Your task to perform on an android device: Clear the cart on bestbuy.com. Search for "apple airpods pro" on bestbuy.com, select the first entry, and add it to the cart. Image 0: 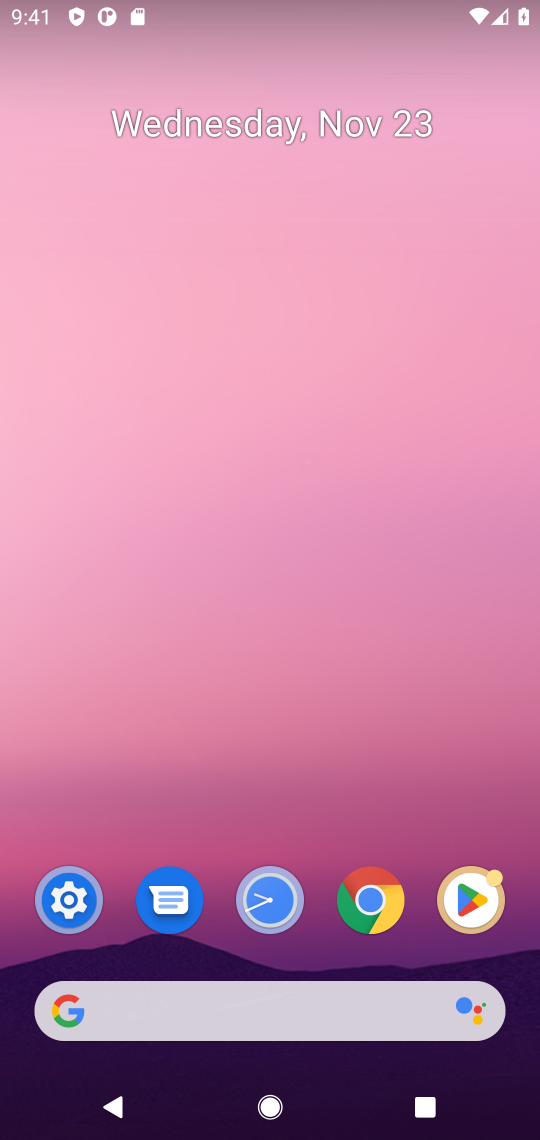
Step 0: click (331, 1001)
Your task to perform on an android device: Clear the cart on bestbuy.com. Search for "apple airpods pro" on bestbuy.com, select the first entry, and add it to the cart. Image 1: 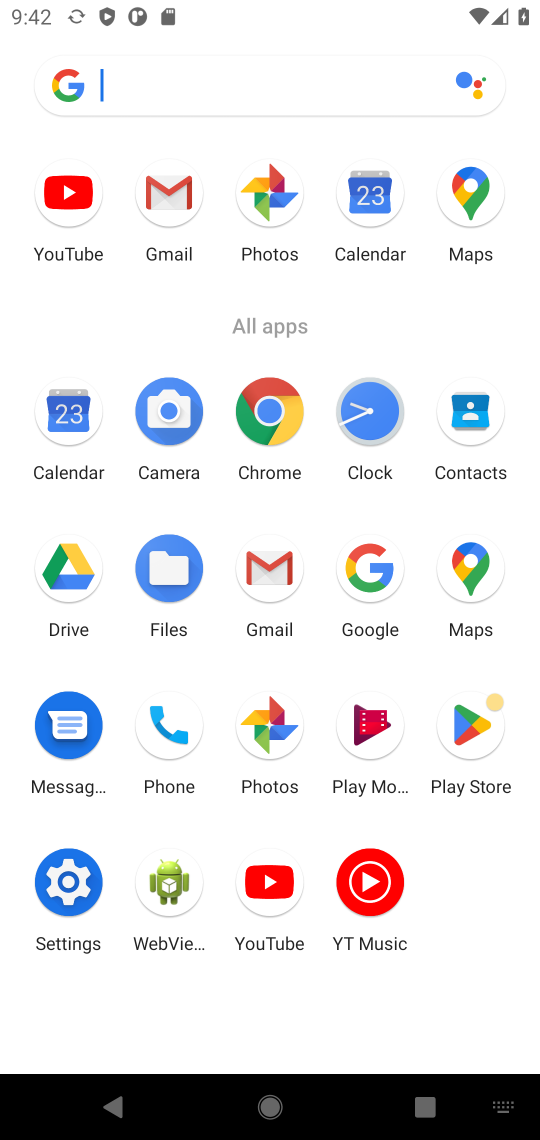
Step 1: press home button
Your task to perform on an android device: Clear the cart on bestbuy.com. Search for "apple airpods pro" on bestbuy.com, select the first entry, and add it to the cart. Image 2: 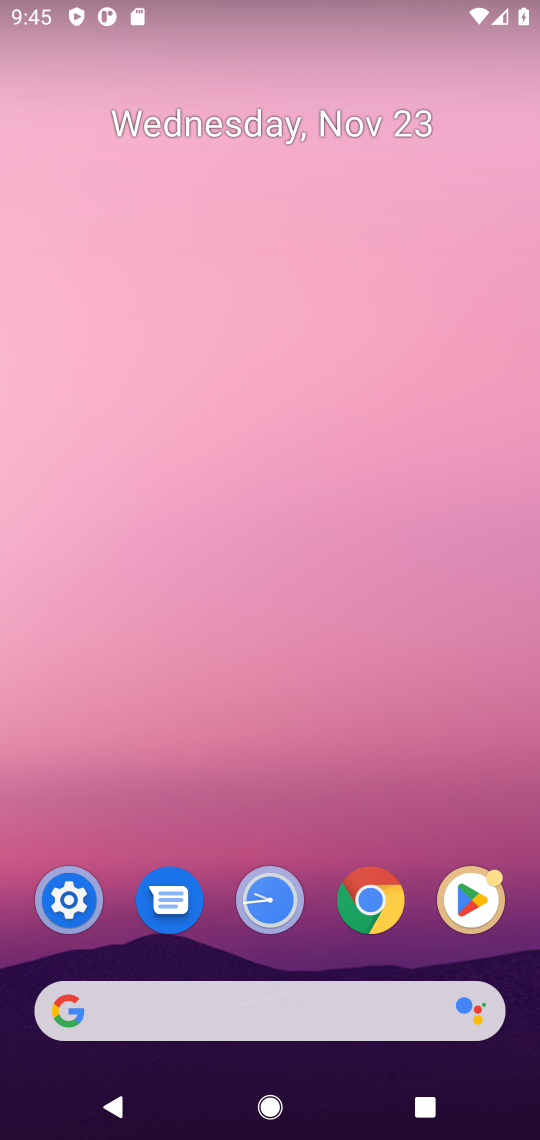
Step 2: click (214, 1021)
Your task to perform on an android device: Clear the cart on bestbuy.com. Search for "apple airpods pro" on bestbuy.com, select the first entry, and add it to the cart. Image 3: 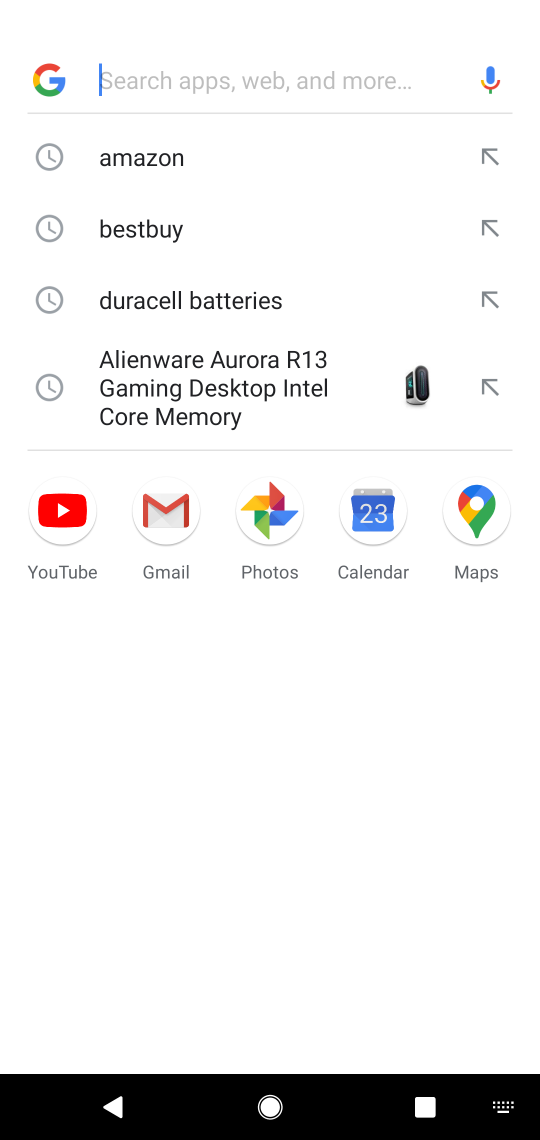
Step 3: click (314, 224)
Your task to perform on an android device: Clear the cart on bestbuy.com. Search for "apple airpods pro" on bestbuy.com, select the first entry, and add it to the cart. Image 4: 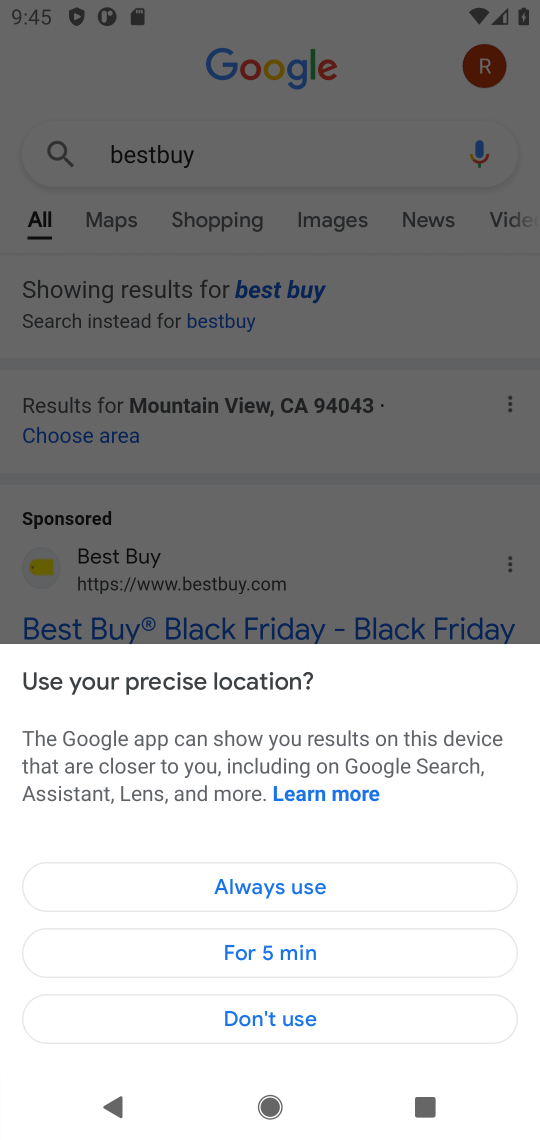
Step 4: click (331, 905)
Your task to perform on an android device: Clear the cart on bestbuy.com. Search for "apple airpods pro" on bestbuy.com, select the first entry, and add it to the cart. Image 5: 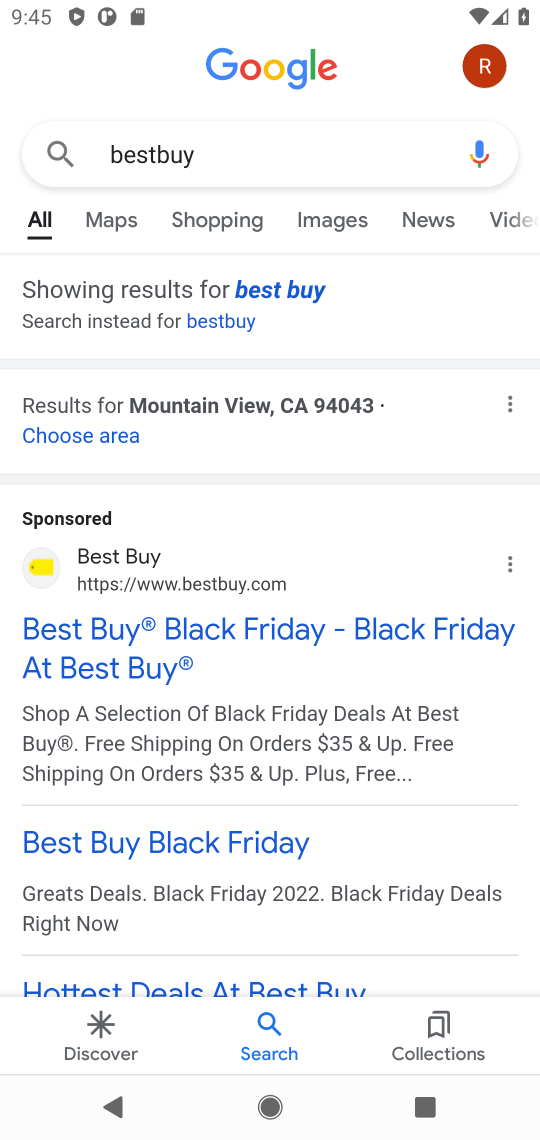
Step 5: click (225, 597)
Your task to perform on an android device: Clear the cart on bestbuy.com. Search for "apple airpods pro" on bestbuy.com, select the first entry, and add it to the cart. Image 6: 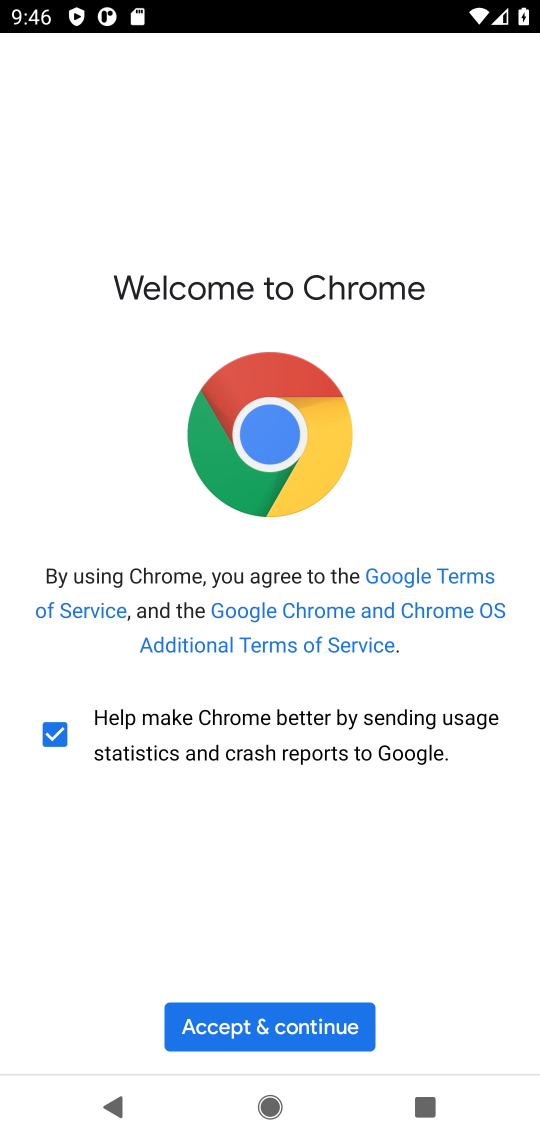
Step 6: click (332, 1038)
Your task to perform on an android device: Clear the cart on bestbuy.com. Search for "apple airpods pro" on bestbuy.com, select the first entry, and add it to the cart. Image 7: 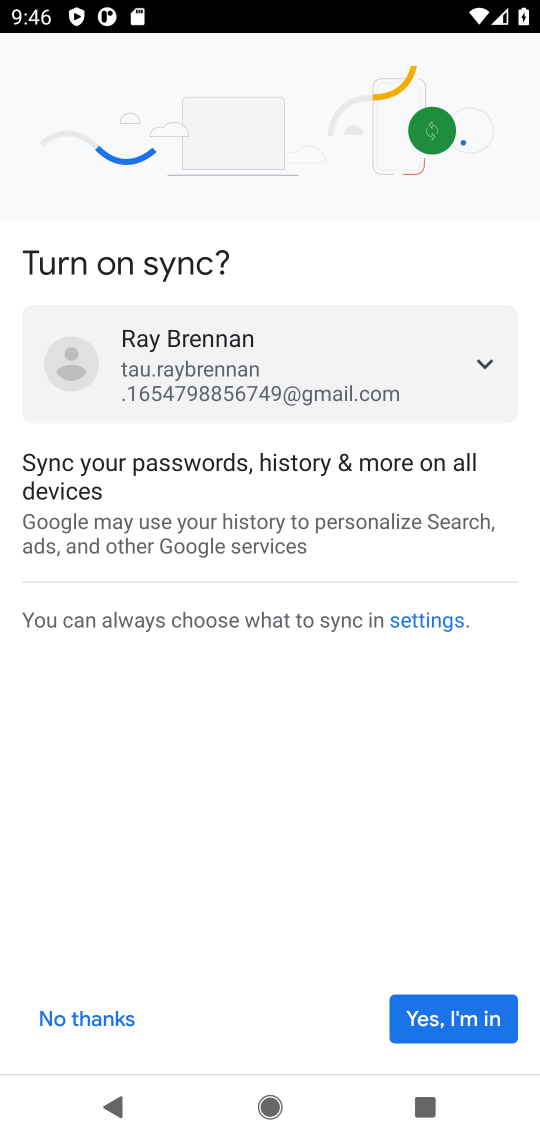
Step 7: click (467, 1045)
Your task to perform on an android device: Clear the cart on bestbuy.com. Search for "apple airpods pro" on bestbuy.com, select the first entry, and add it to the cart. Image 8: 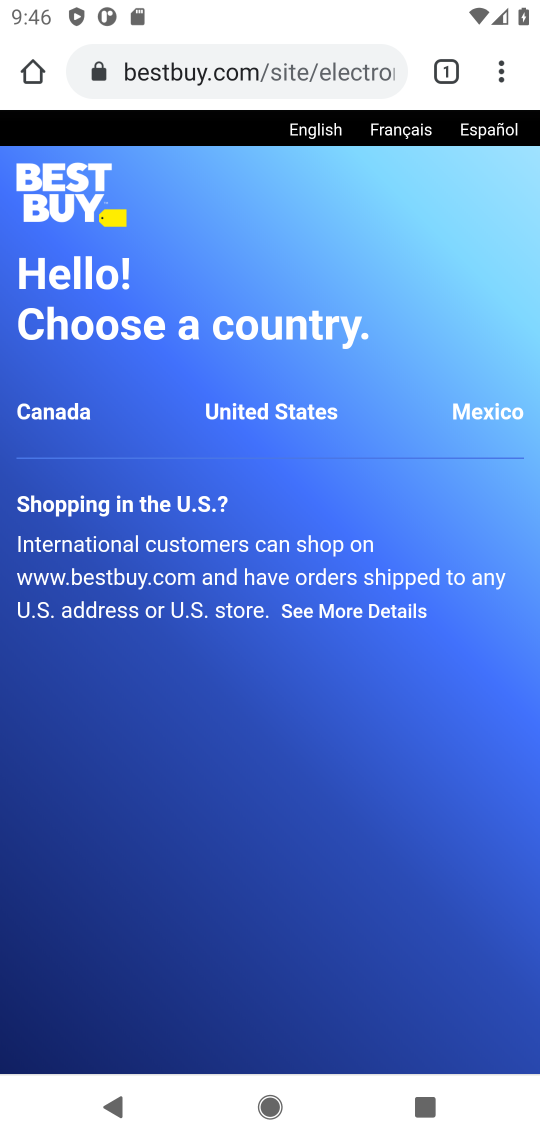
Step 8: click (87, 446)
Your task to perform on an android device: Clear the cart on bestbuy.com. Search for "apple airpods pro" on bestbuy.com, select the first entry, and add it to the cart. Image 9: 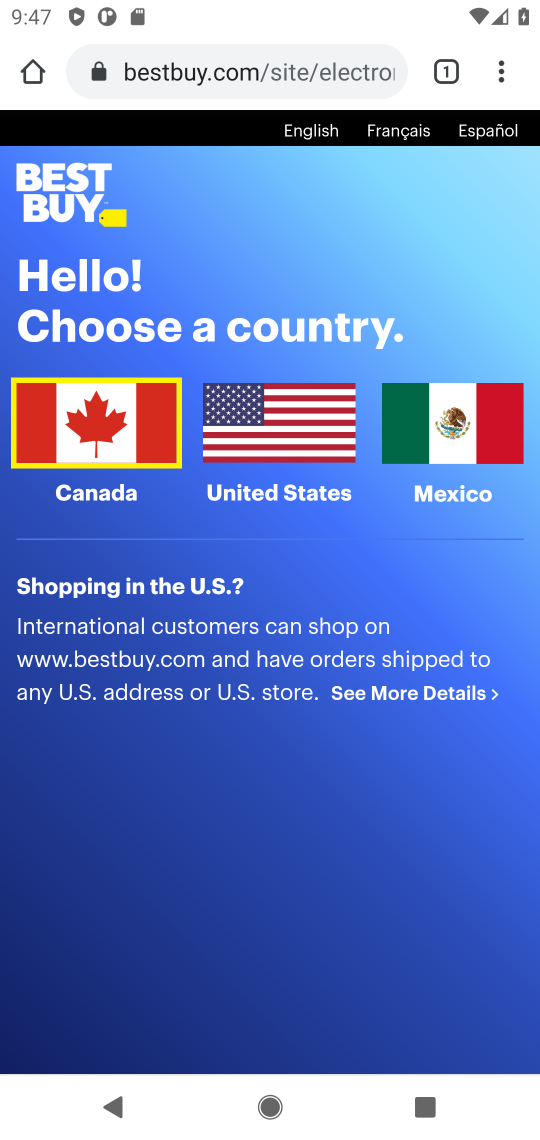
Step 9: click (165, 422)
Your task to perform on an android device: Clear the cart on bestbuy.com. Search for "apple airpods pro" on bestbuy.com, select the first entry, and add it to the cart. Image 10: 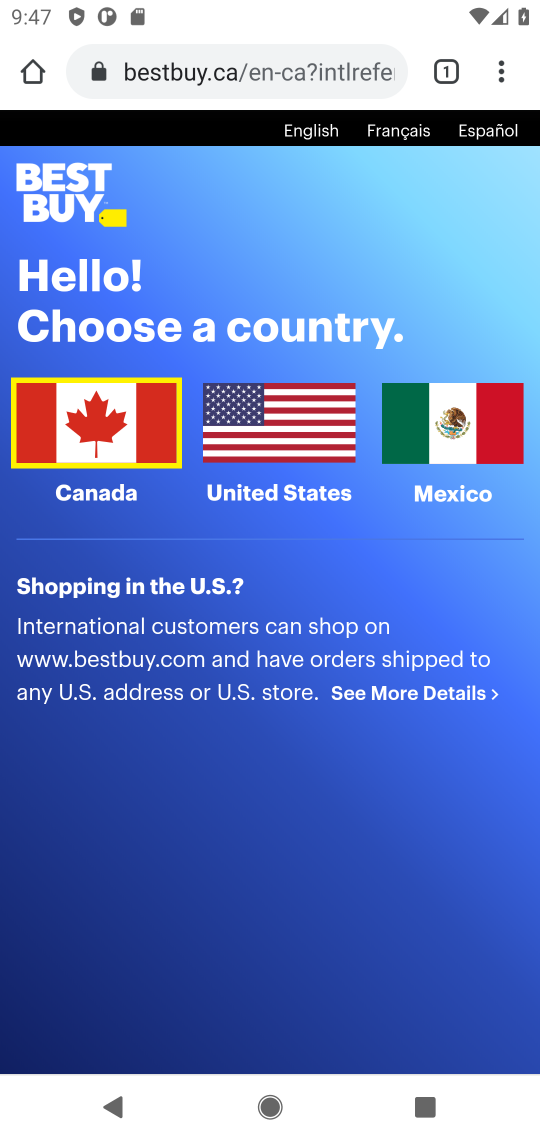
Step 10: task complete